Your task to perform on an android device: open app "Google News" (install if not already installed) Image 0: 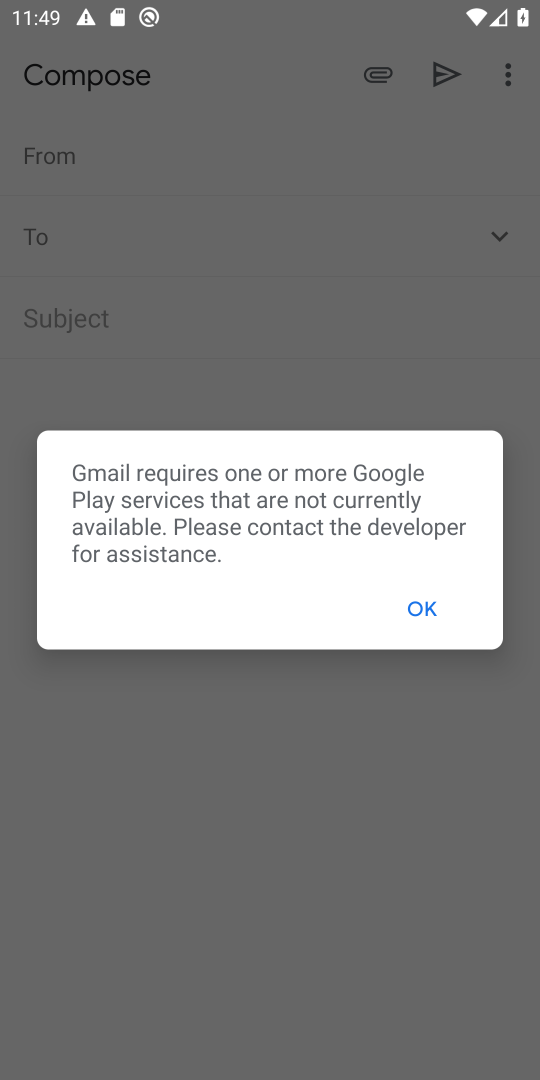
Step 0: press home button
Your task to perform on an android device: open app "Google News" (install if not already installed) Image 1: 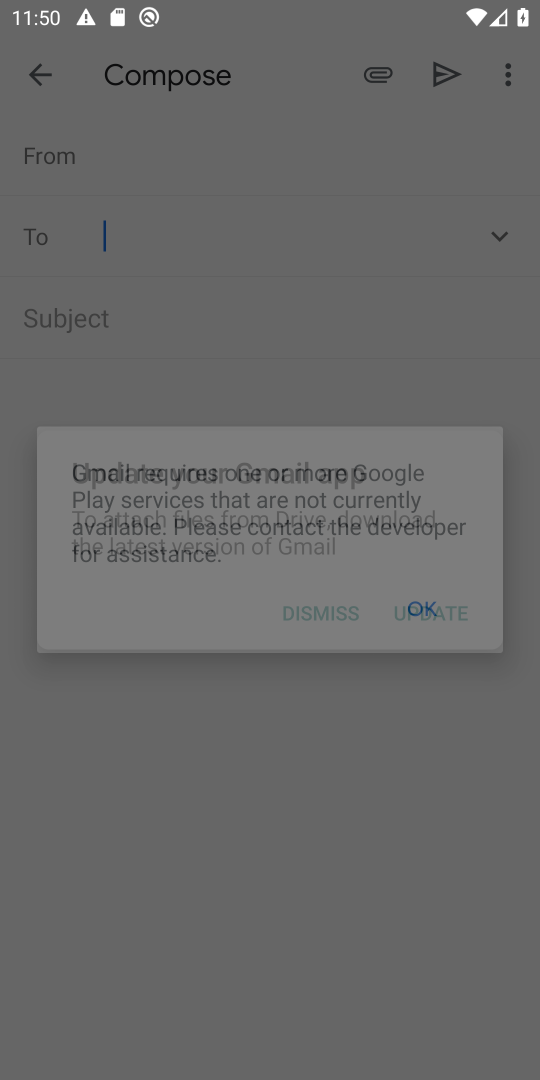
Step 1: press home button
Your task to perform on an android device: open app "Google News" (install if not already installed) Image 2: 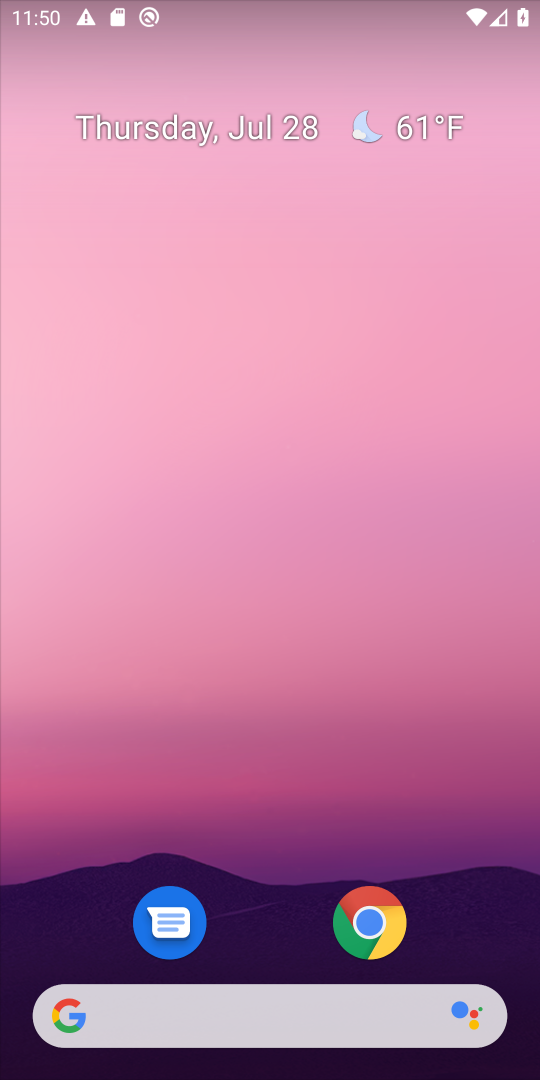
Step 2: drag from (461, 805) to (420, 11)
Your task to perform on an android device: open app "Google News" (install if not already installed) Image 3: 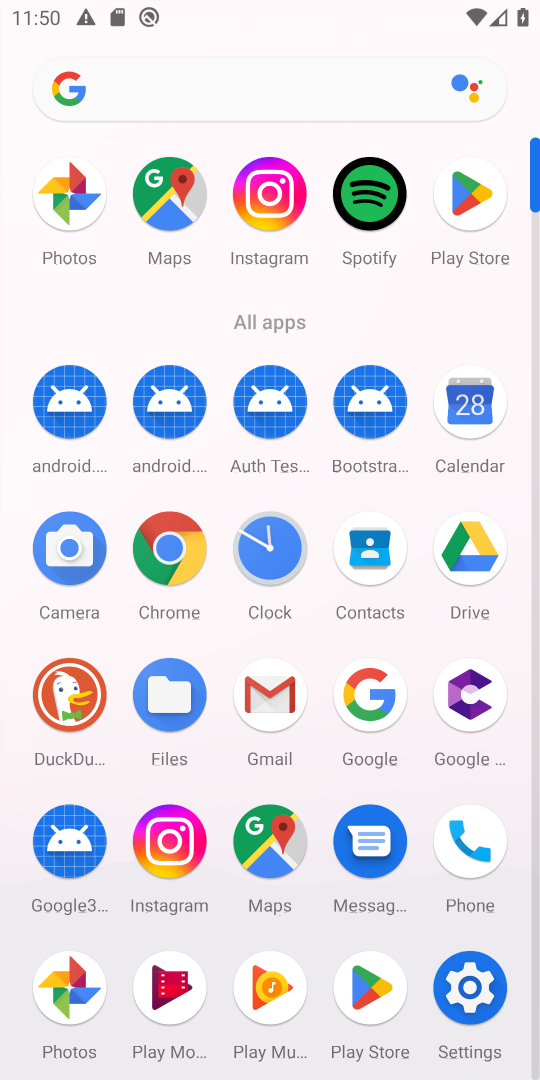
Step 3: click (457, 186)
Your task to perform on an android device: open app "Google News" (install if not already installed) Image 4: 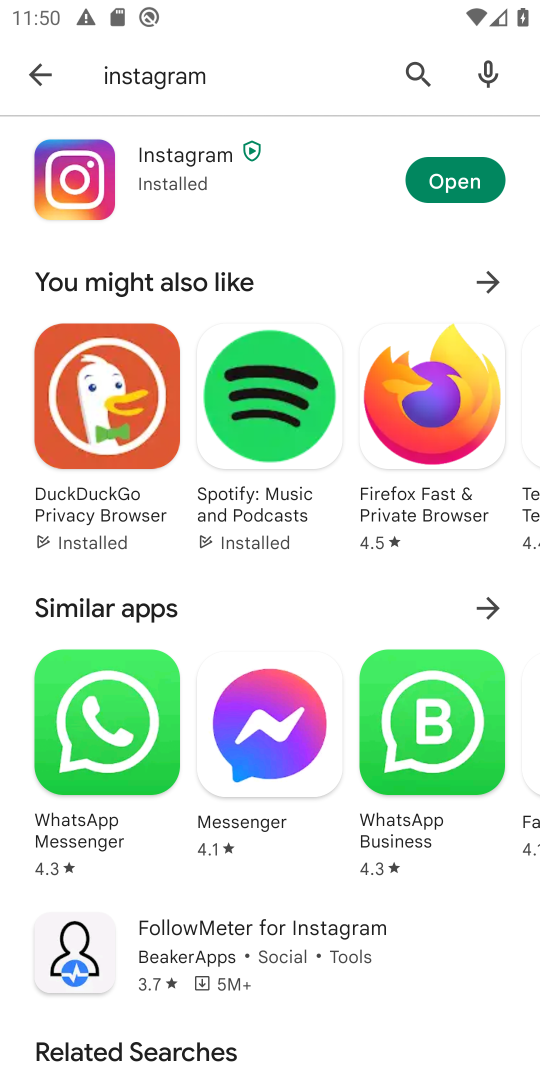
Step 4: click (274, 90)
Your task to perform on an android device: open app "Google News" (install if not already installed) Image 5: 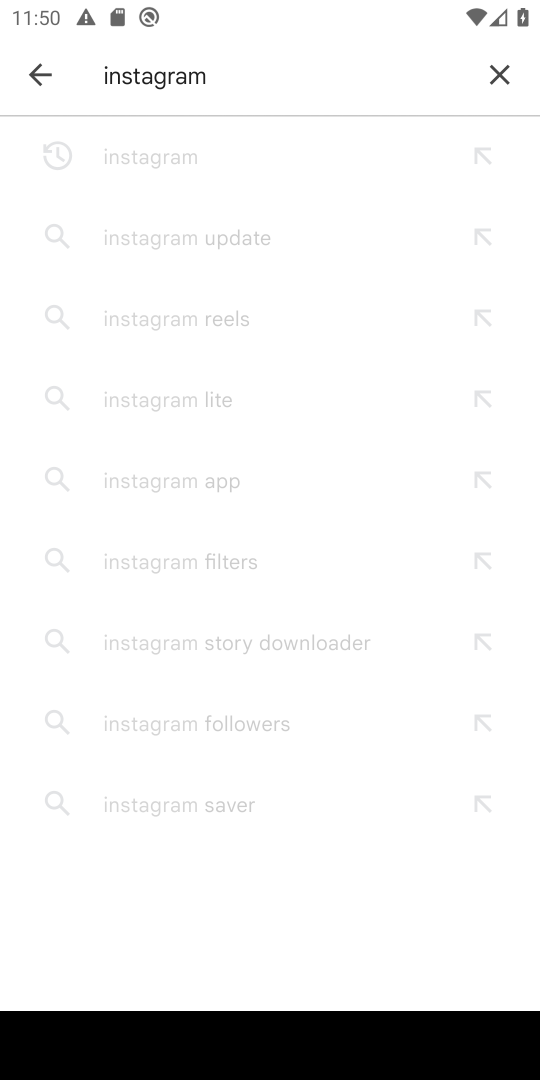
Step 5: click (537, 63)
Your task to perform on an android device: open app "Google News" (install if not already installed) Image 6: 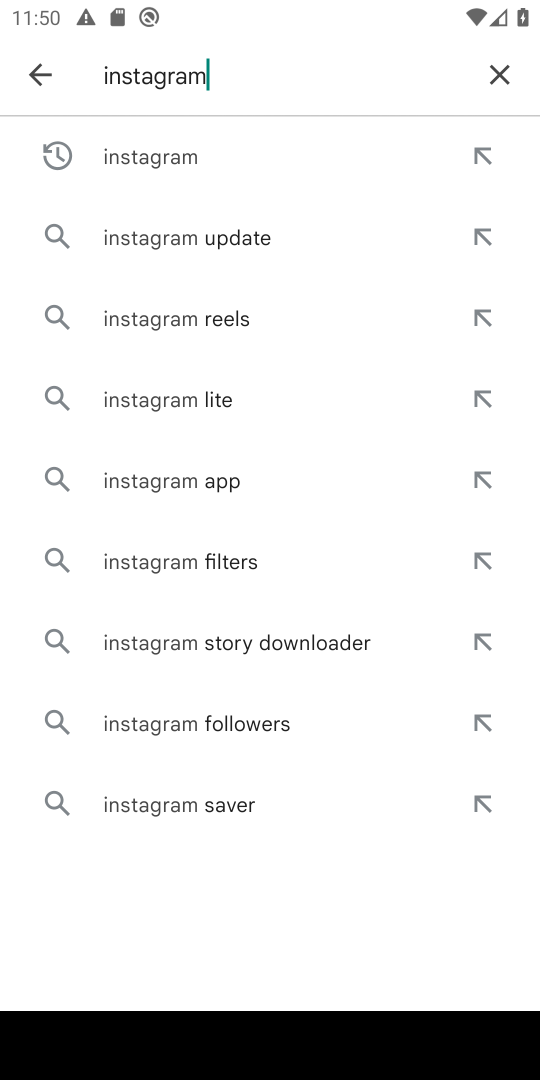
Step 6: click (508, 63)
Your task to perform on an android device: open app "Google News" (install if not already installed) Image 7: 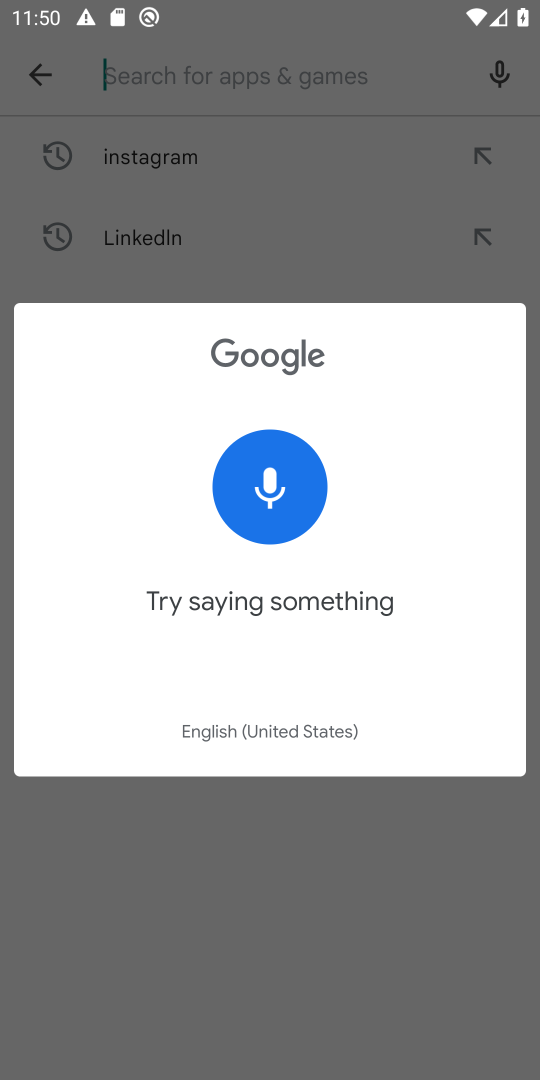
Step 7: type "Google Newws"
Your task to perform on an android device: open app "Google News" (install if not already installed) Image 8: 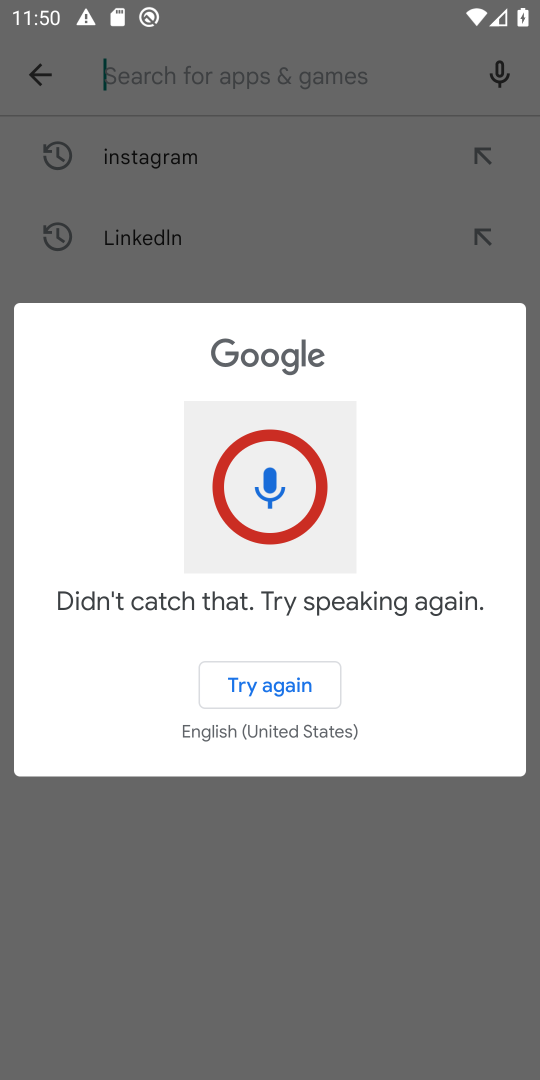
Step 8: click (107, 112)
Your task to perform on an android device: open app "Google News" (install if not already installed) Image 9: 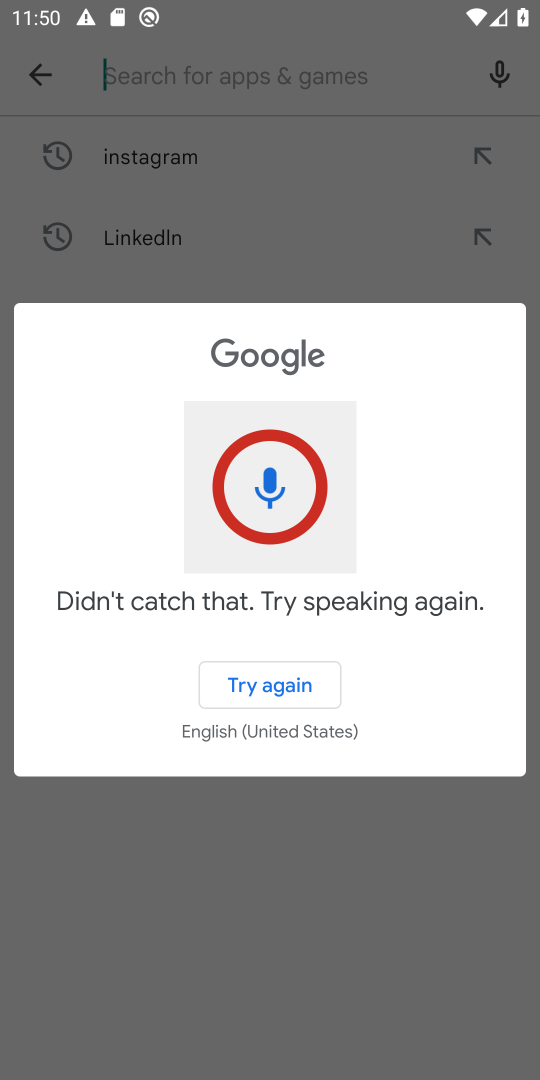
Step 9: click (137, 98)
Your task to perform on an android device: open app "Google News" (install if not already installed) Image 10: 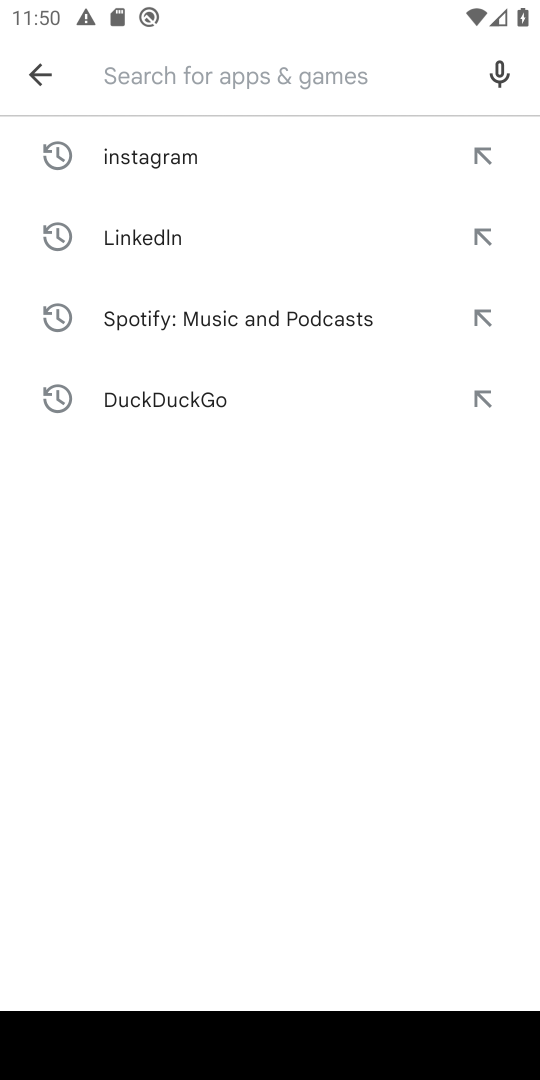
Step 10: type "Google News"
Your task to perform on an android device: open app "Google News" (install if not already installed) Image 11: 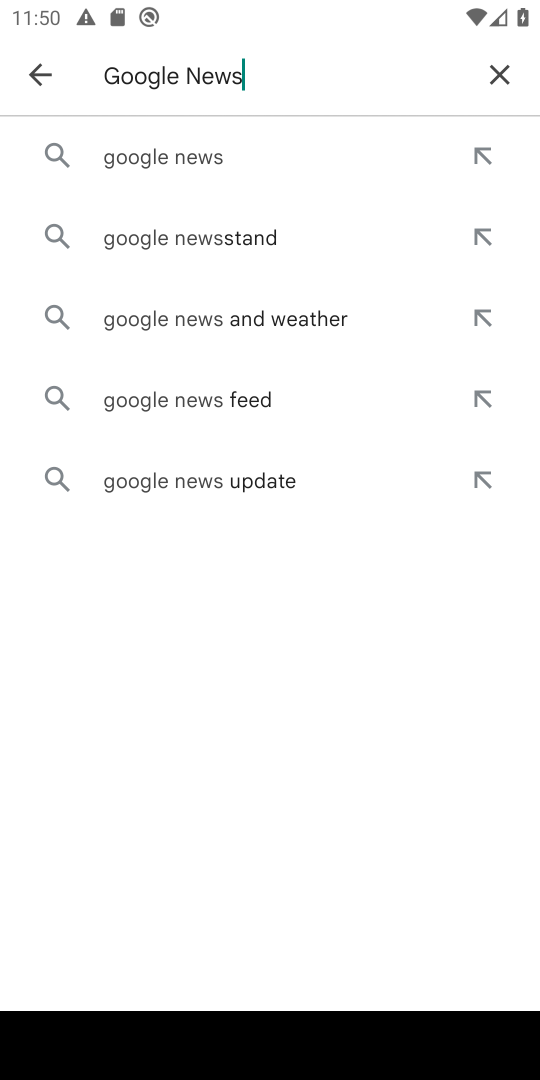
Step 11: press enter
Your task to perform on an android device: open app "Google News" (install if not already installed) Image 12: 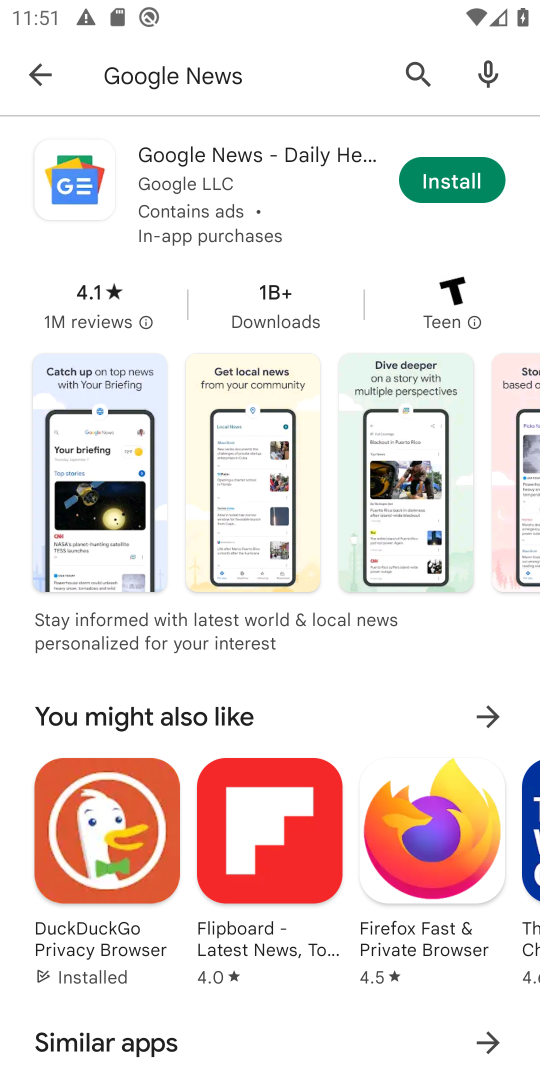
Step 12: click (446, 189)
Your task to perform on an android device: open app "Google News" (install if not already installed) Image 13: 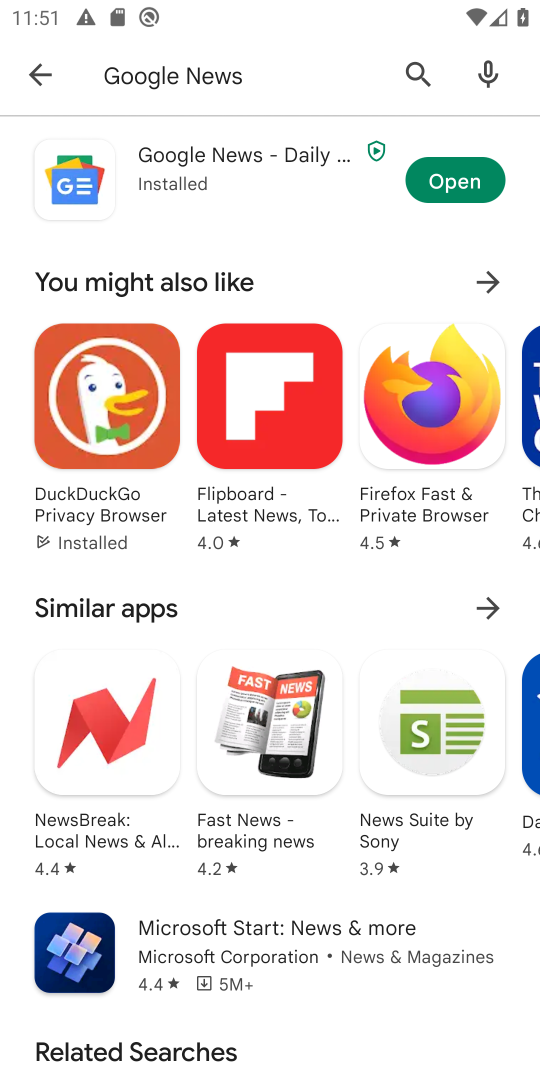
Step 13: click (470, 172)
Your task to perform on an android device: open app "Google News" (install if not already installed) Image 14: 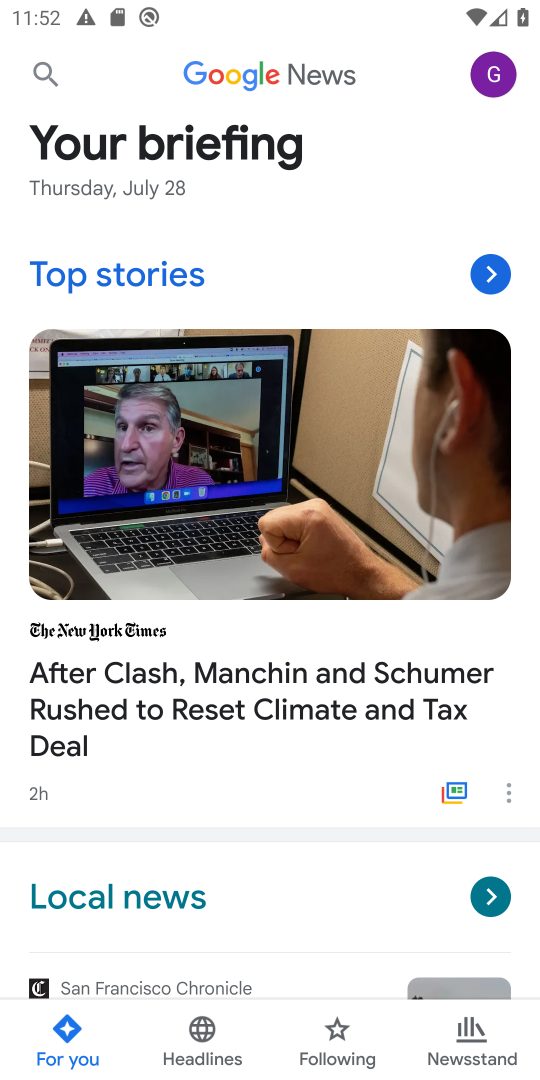
Step 14: task complete